Your task to perform on an android device: snooze an email in the gmail app Image 0: 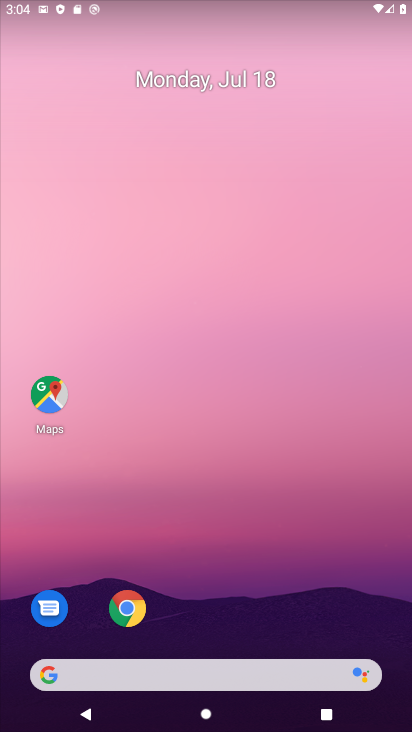
Step 0: drag from (217, 610) to (303, 87)
Your task to perform on an android device: snooze an email in the gmail app Image 1: 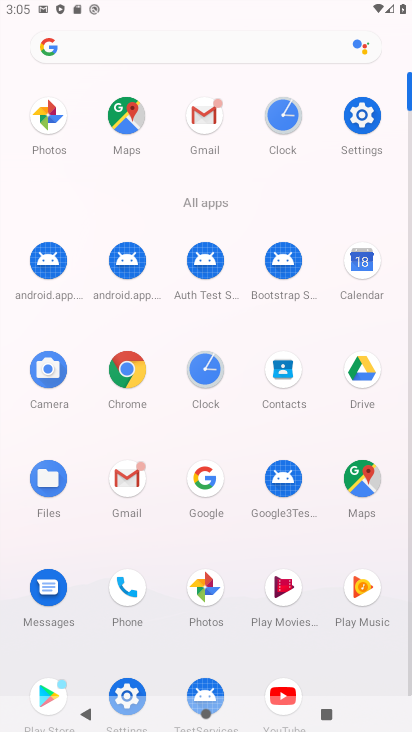
Step 1: click (110, 479)
Your task to perform on an android device: snooze an email in the gmail app Image 2: 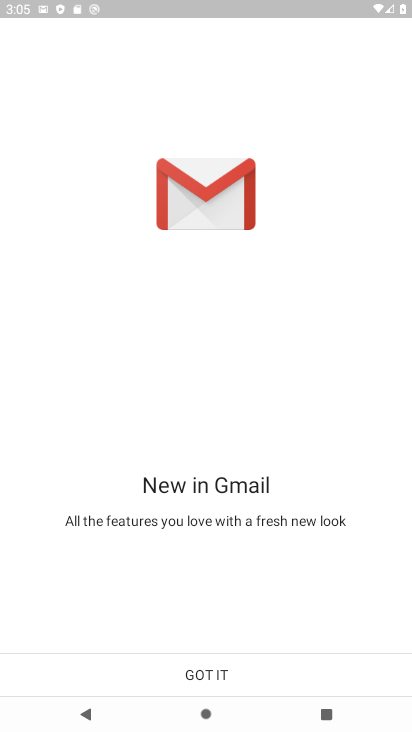
Step 2: click (231, 679)
Your task to perform on an android device: snooze an email in the gmail app Image 3: 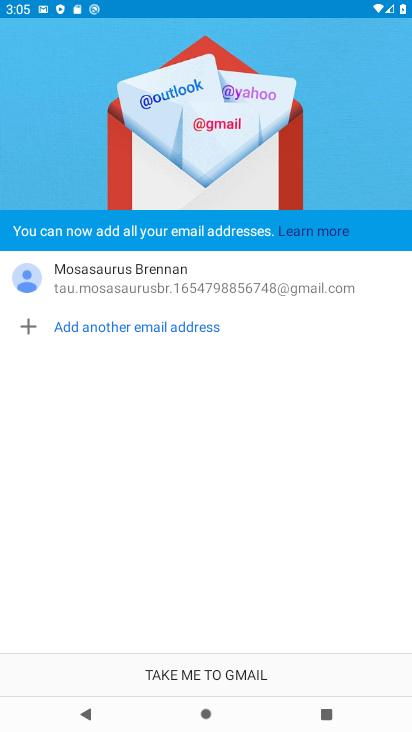
Step 3: click (233, 674)
Your task to perform on an android device: snooze an email in the gmail app Image 4: 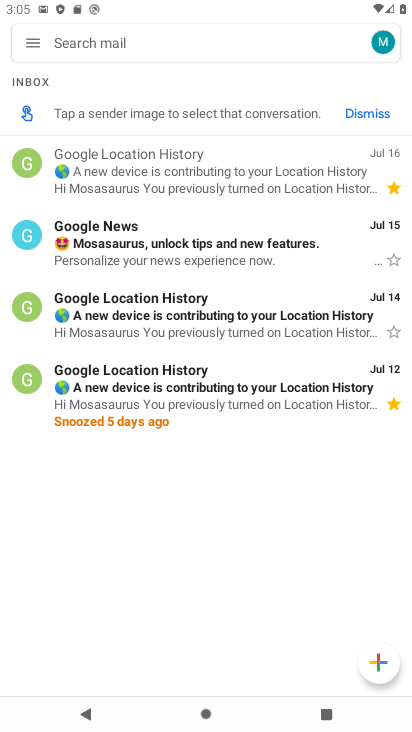
Step 4: click (33, 46)
Your task to perform on an android device: snooze an email in the gmail app Image 5: 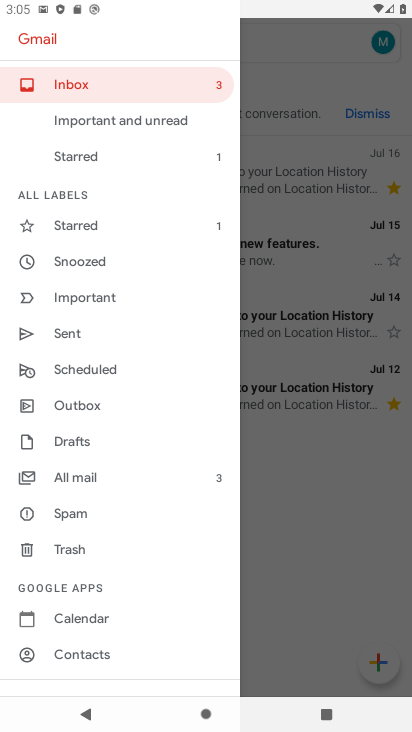
Step 5: click (85, 480)
Your task to perform on an android device: snooze an email in the gmail app Image 6: 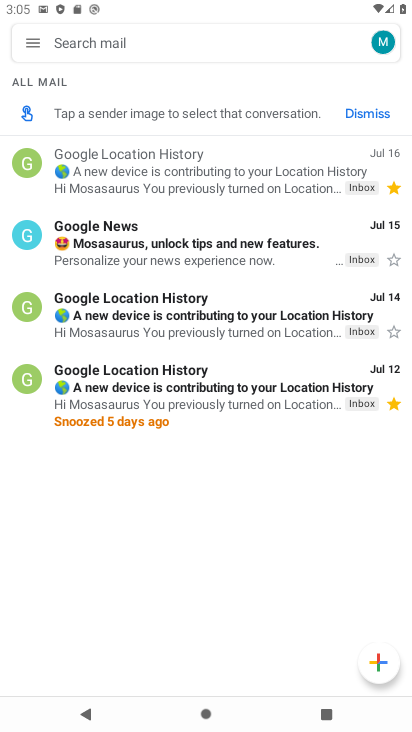
Step 6: click (159, 170)
Your task to perform on an android device: snooze an email in the gmail app Image 7: 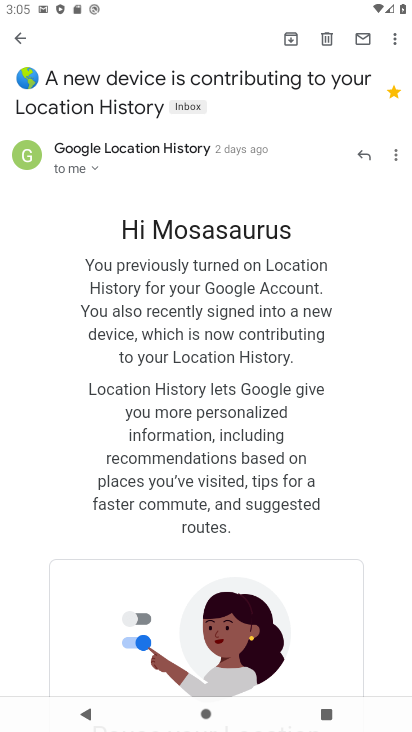
Step 7: click (395, 38)
Your task to perform on an android device: snooze an email in the gmail app Image 8: 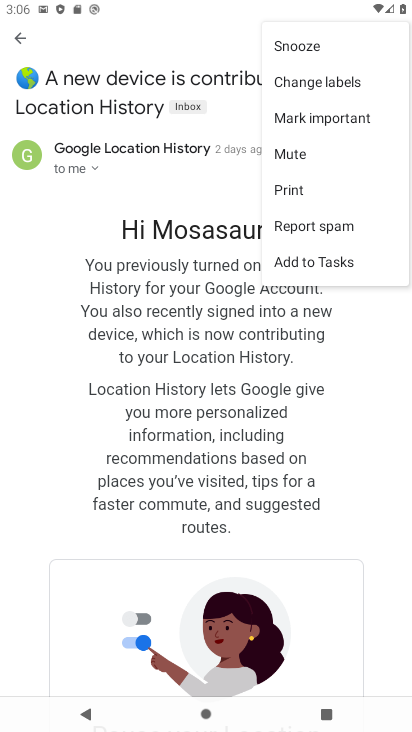
Step 8: click (299, 43)
Your task to perform on an android device: snooze an email in the gmail app Image 9: 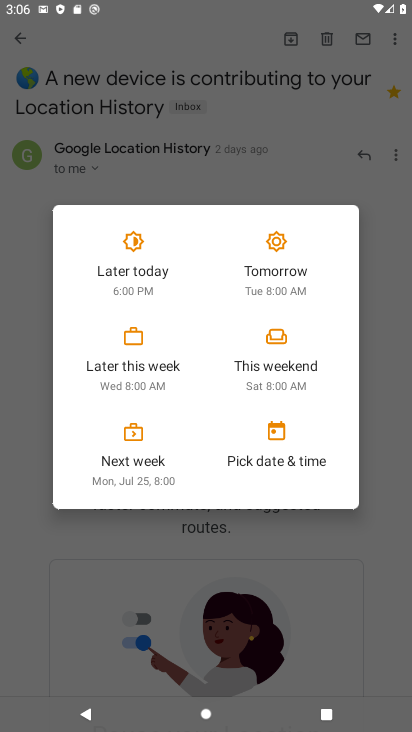
Step 9: click (277, 275)
Your task to perform on an android device: snooze an email in the gmail app Image 10: 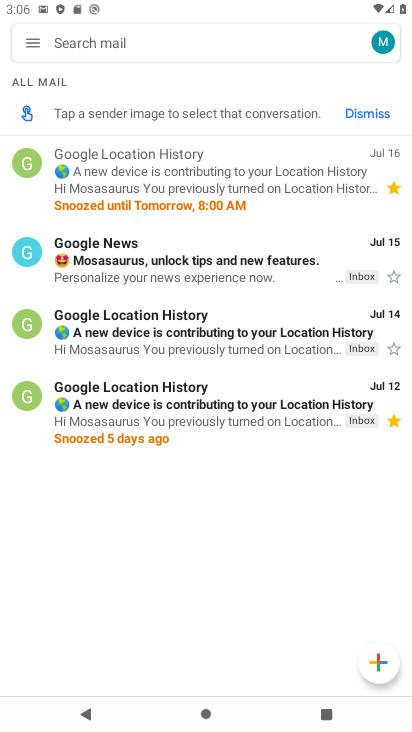
Step 10: task complete